Your task to perform on an android device: turn off location Image 0: 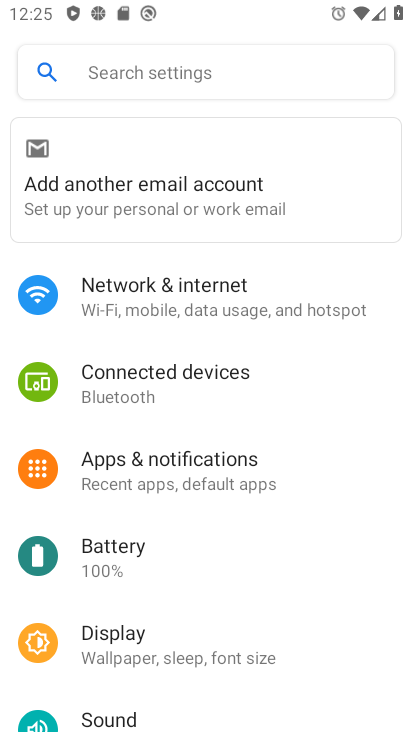
Step 0: drag from (183, 588) to (150, 147)
Your task to perform on an android device: turn off location Image 1: 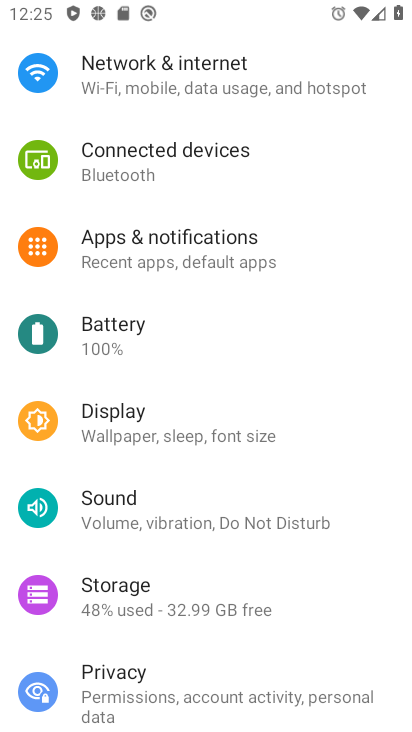
Step 1: drag from (251, 584) to (224, 316)
Your task to perform on an android device: turn off location Image 2: 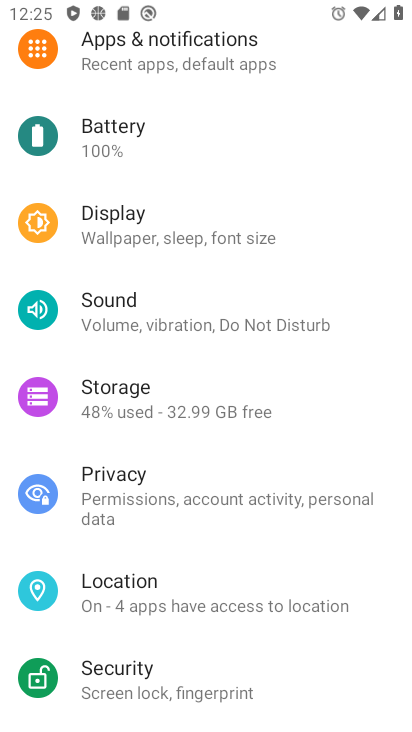
Step 2: click (237, 271)
Your task to perform on an android device: turn off location Image 3: 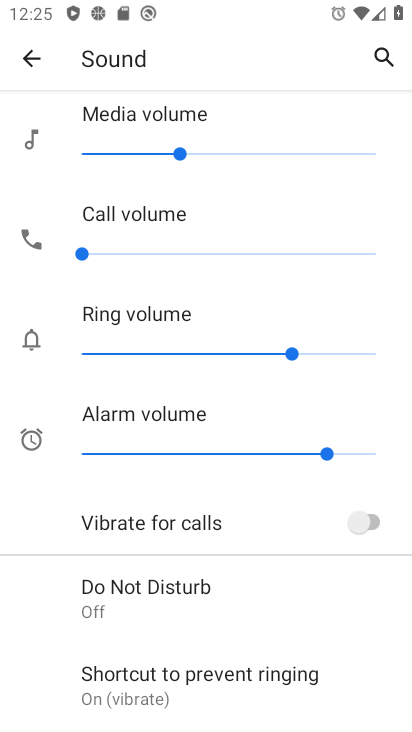
Step 3: click (46, 61)
Your task to perform on an android device: turn off location Image 4: 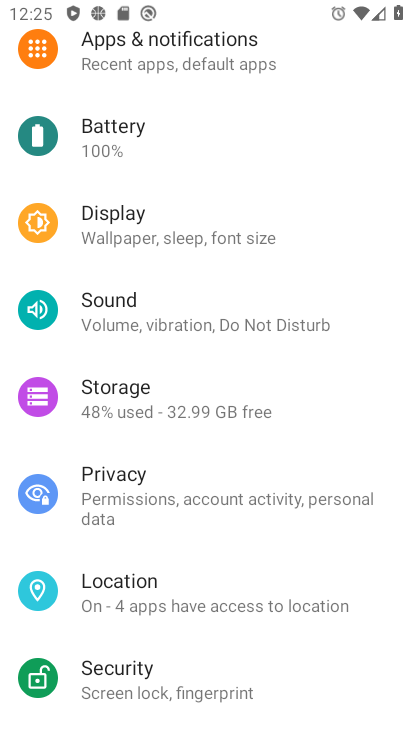
Step 4: click (171, 606)
Your task to perform on an android device: turn off location Image 5: 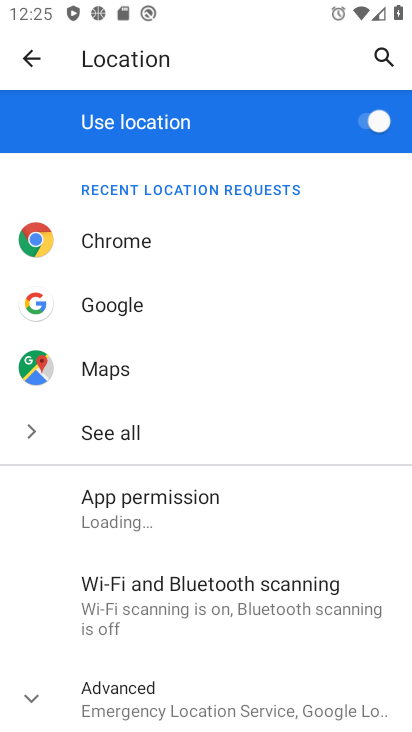
Step 5: click (364, 121)
Your task to perform on an android device: turn off location Image 6: 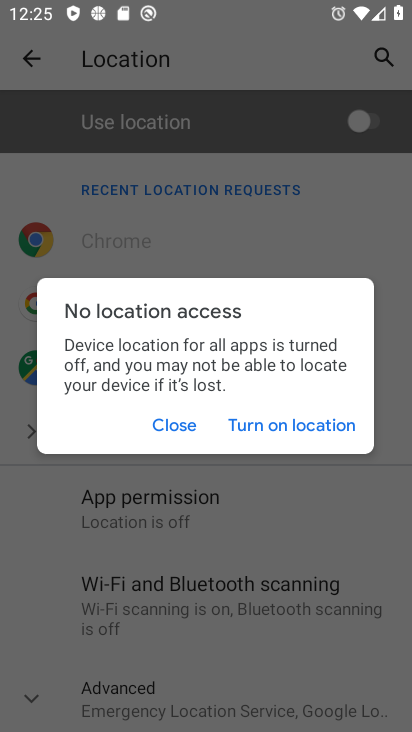
Step 6: task complete